Your task to perform on an android device: Add usb-c to usb-a to the cart on target Image 0: 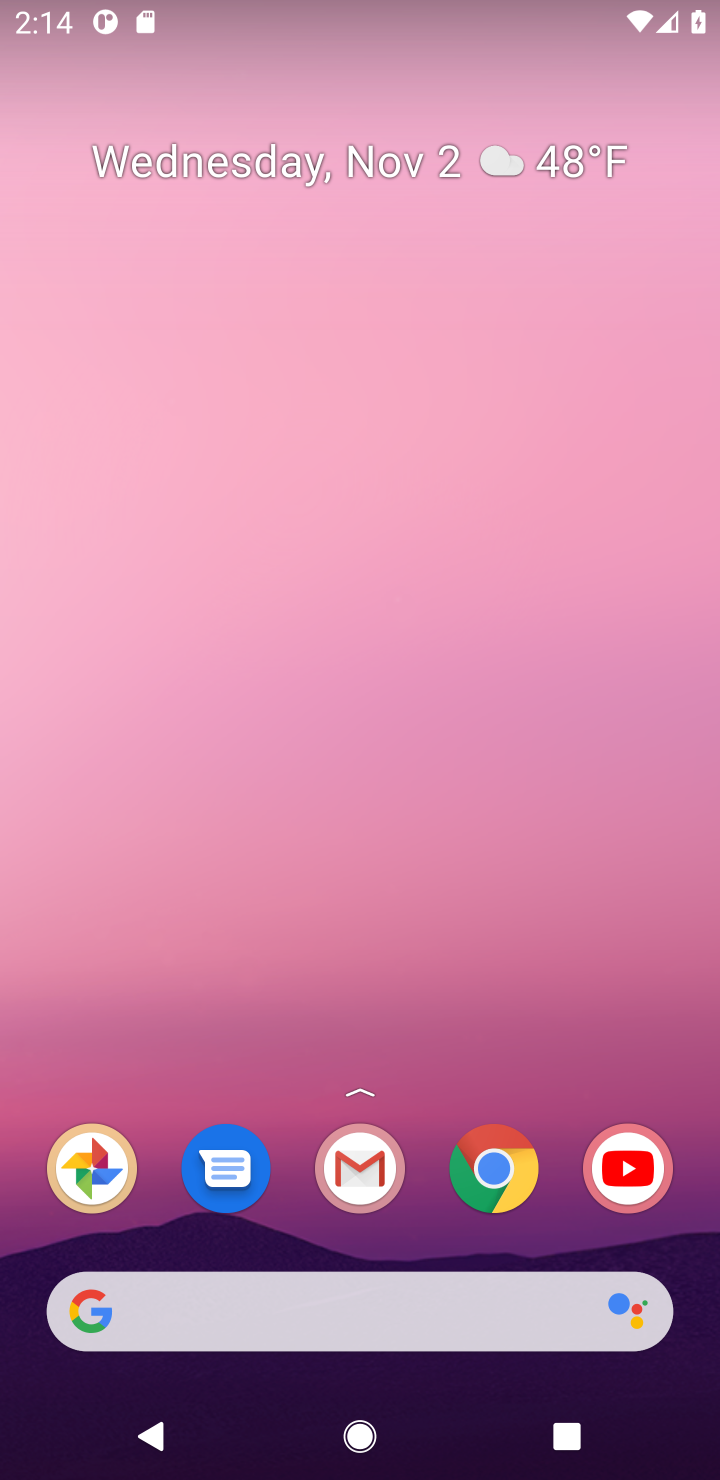
Step 0: click (349, 1306)
Your task to perform on an android device: Add usb-c to usb-a to the cart on target Image 1: 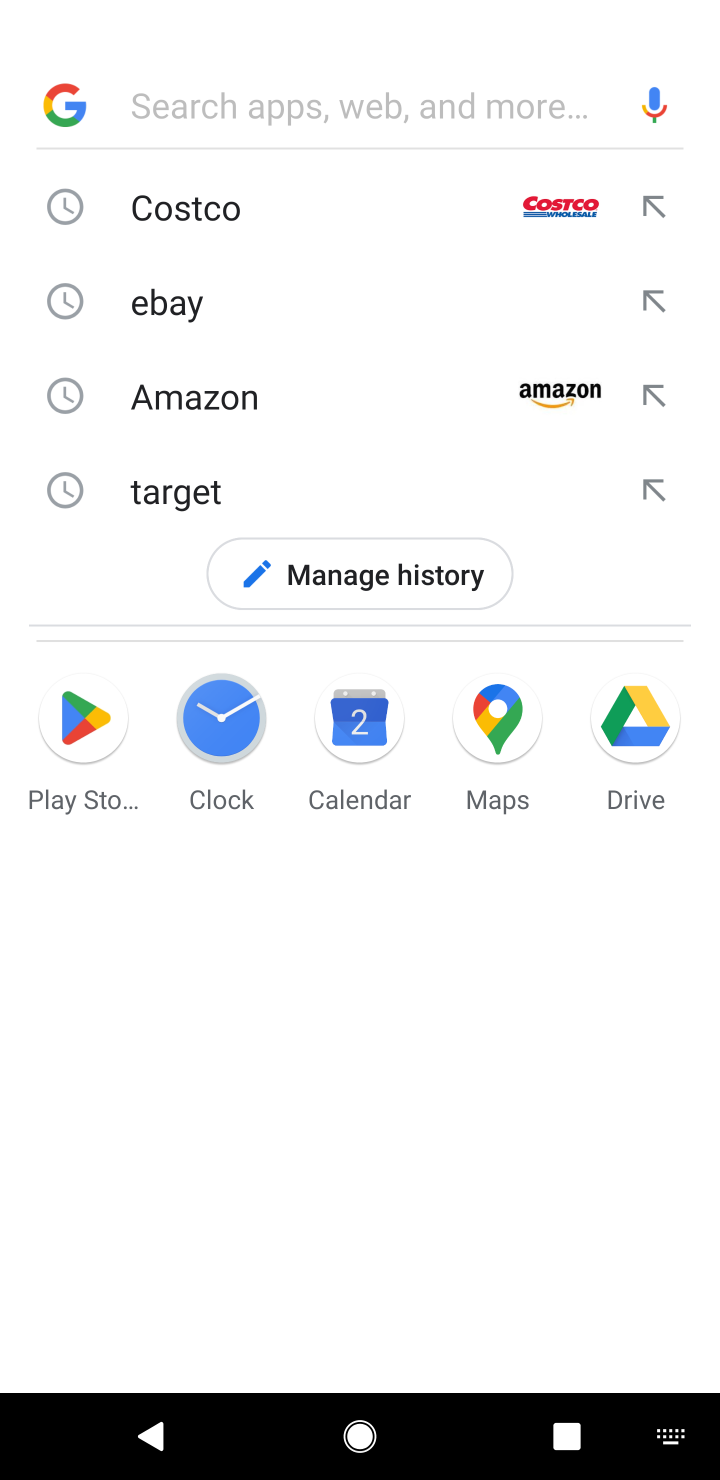
Step 1: click (181, 493)
Your task to perform on an android device: Add usb-c to usb-a to the cart on target Image 2: 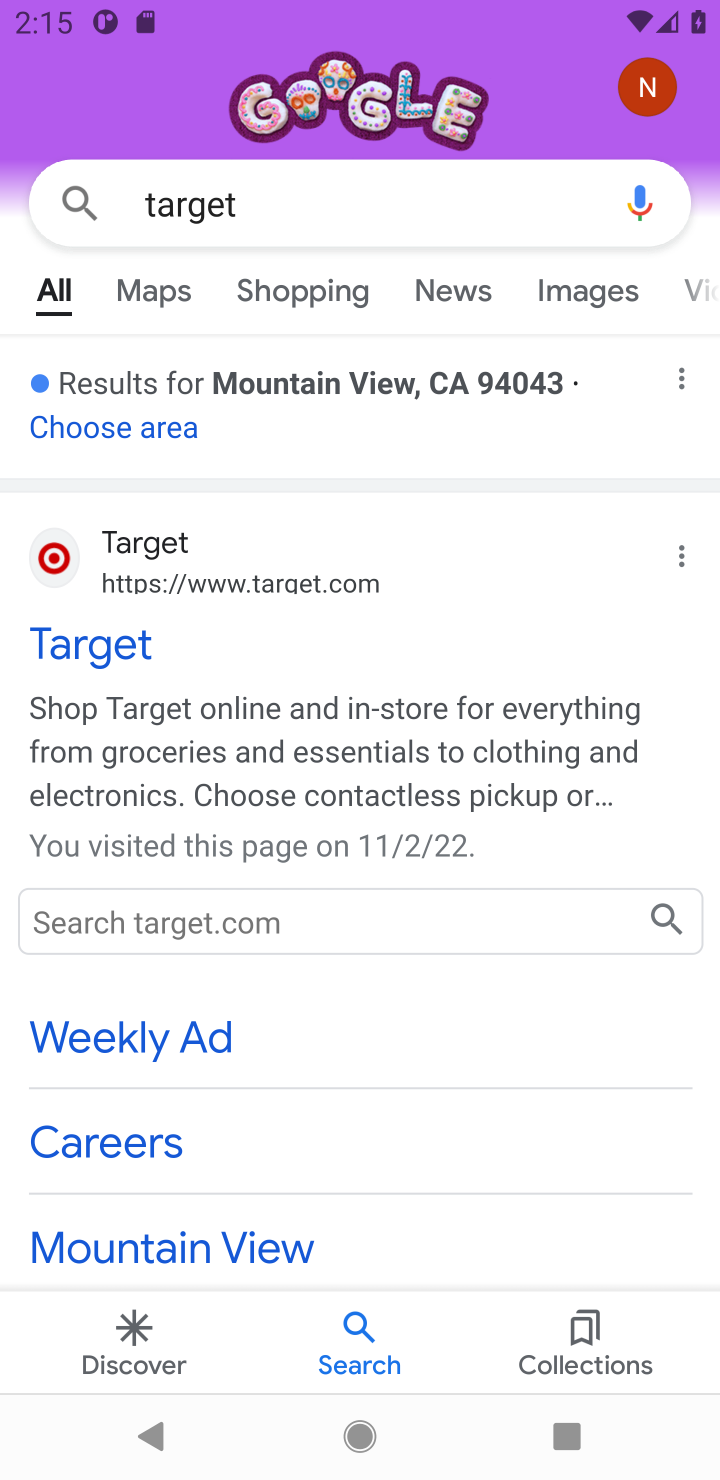
Step 2: click (137, 554)
Your task to perform on an android device: Add usb-c to usb-a to the cart on target Image 3: 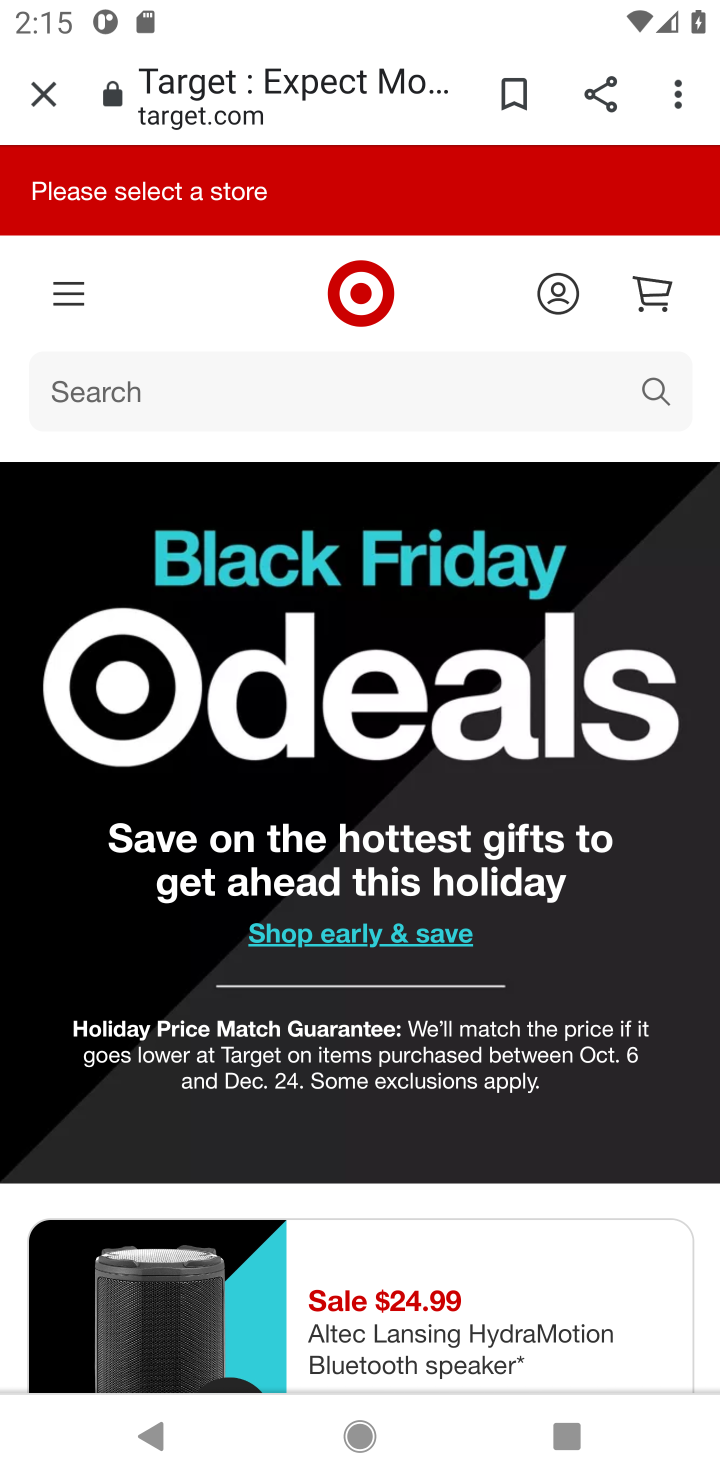
Step 3: click (426, 396)
Your task to perform on an android device: Add usb-c to usb-a to the cart on target Image 4: 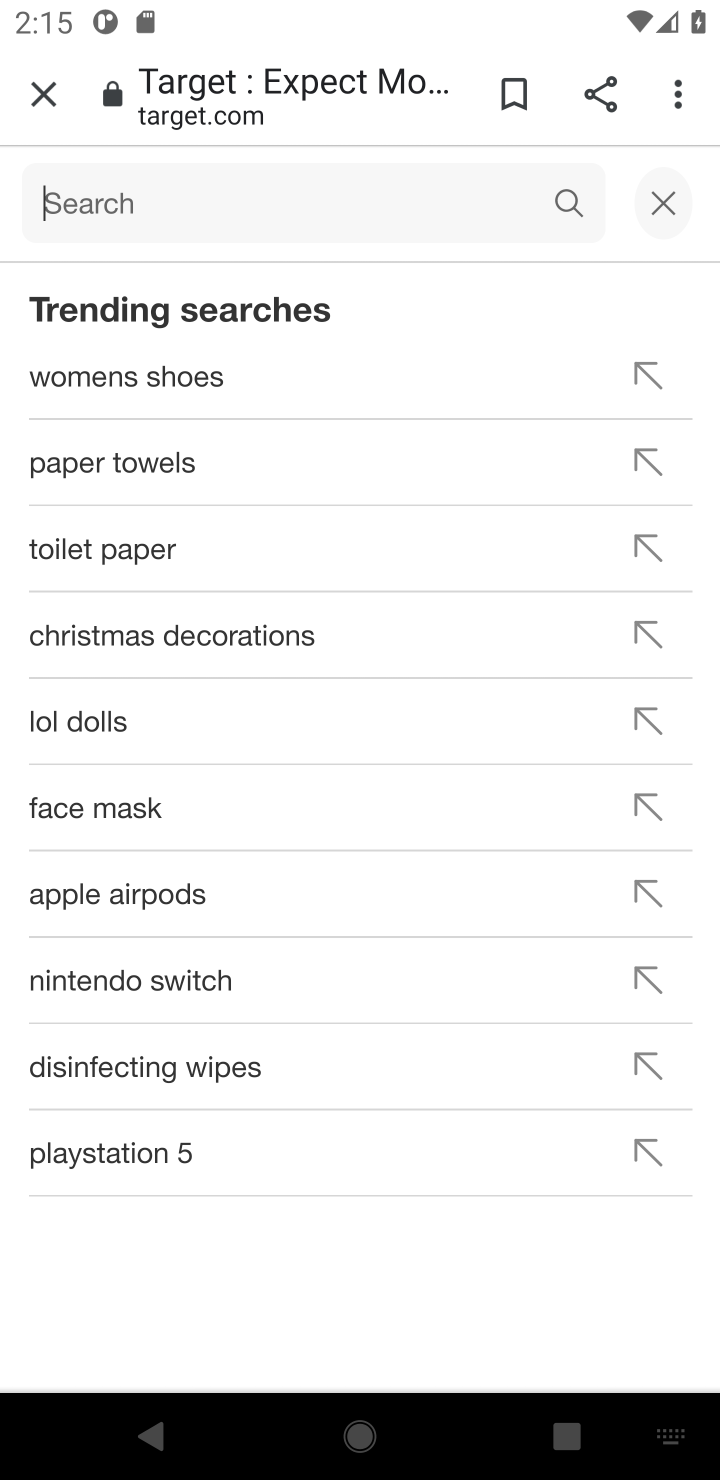
Step 4: type "usb-c to usb-a"
Your task to perform on an android device: Add usb-c to usb-a to the cart on target Image 5: 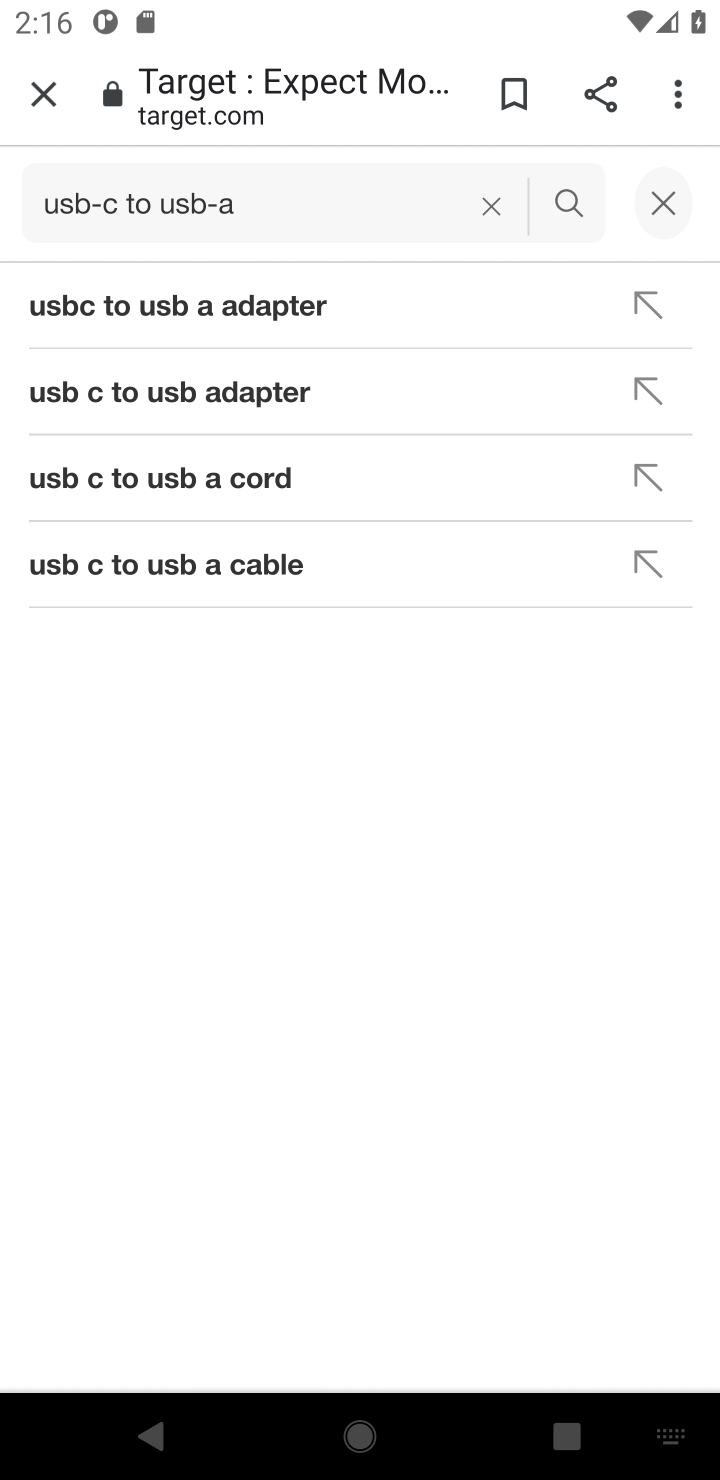
Step 5: click (209, 565)
Your task to perform on an android device: Add usb-c to usb-a to the cart on target Image 6: 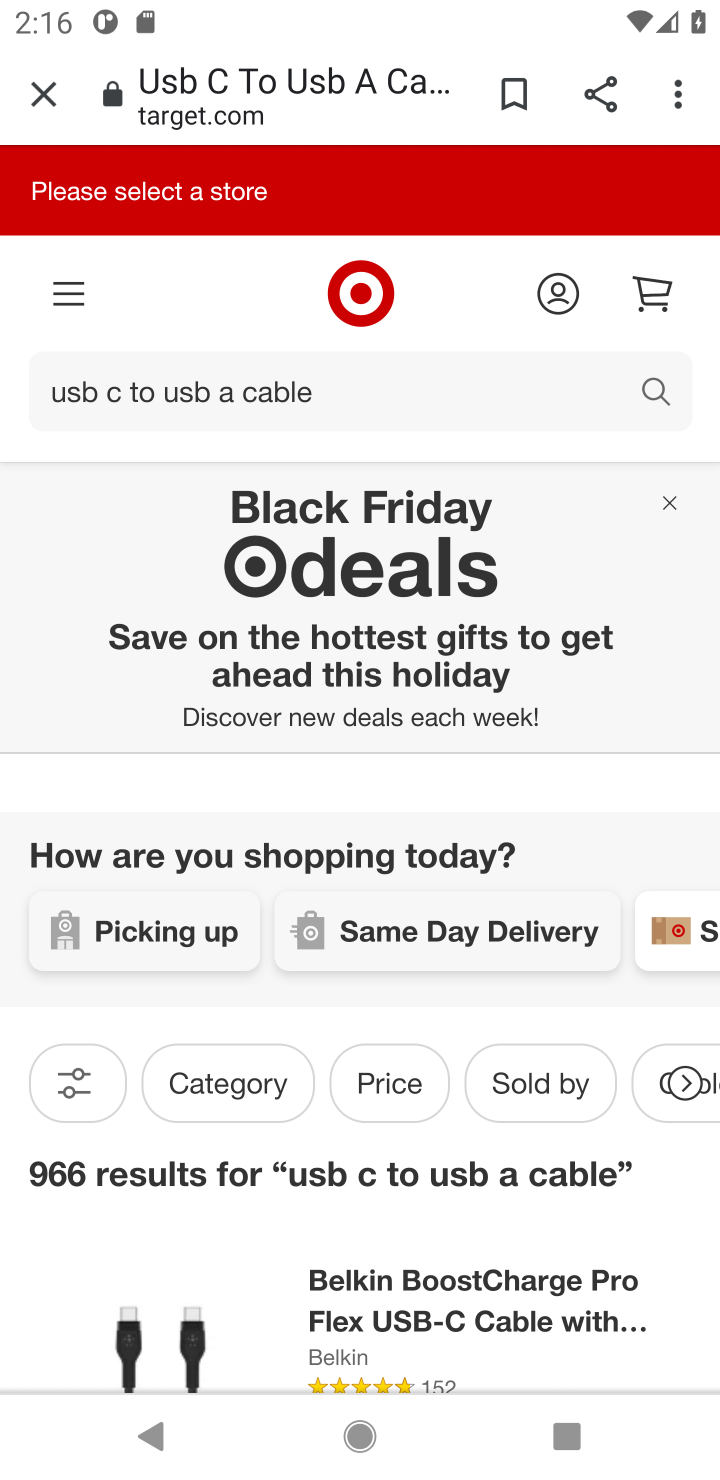
Step 6: drag from (395, 1158) to (424, 688)
Your task to perform on an android device: Add usb-c to usb-a to the cart on target Image 7: 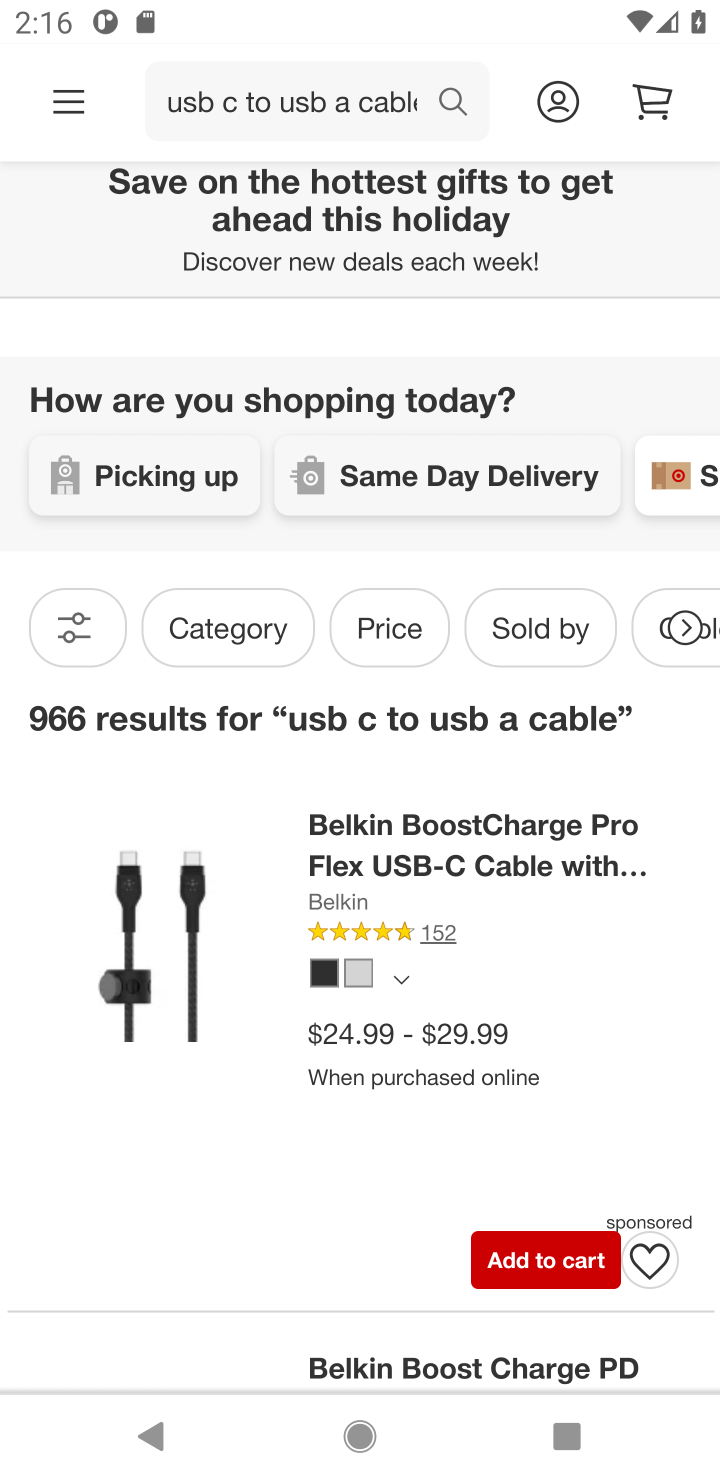
Step 7: click (529, 1253)
Your task to perform on an android device: Add usb-c to usb-a to the cart on target Image 8: 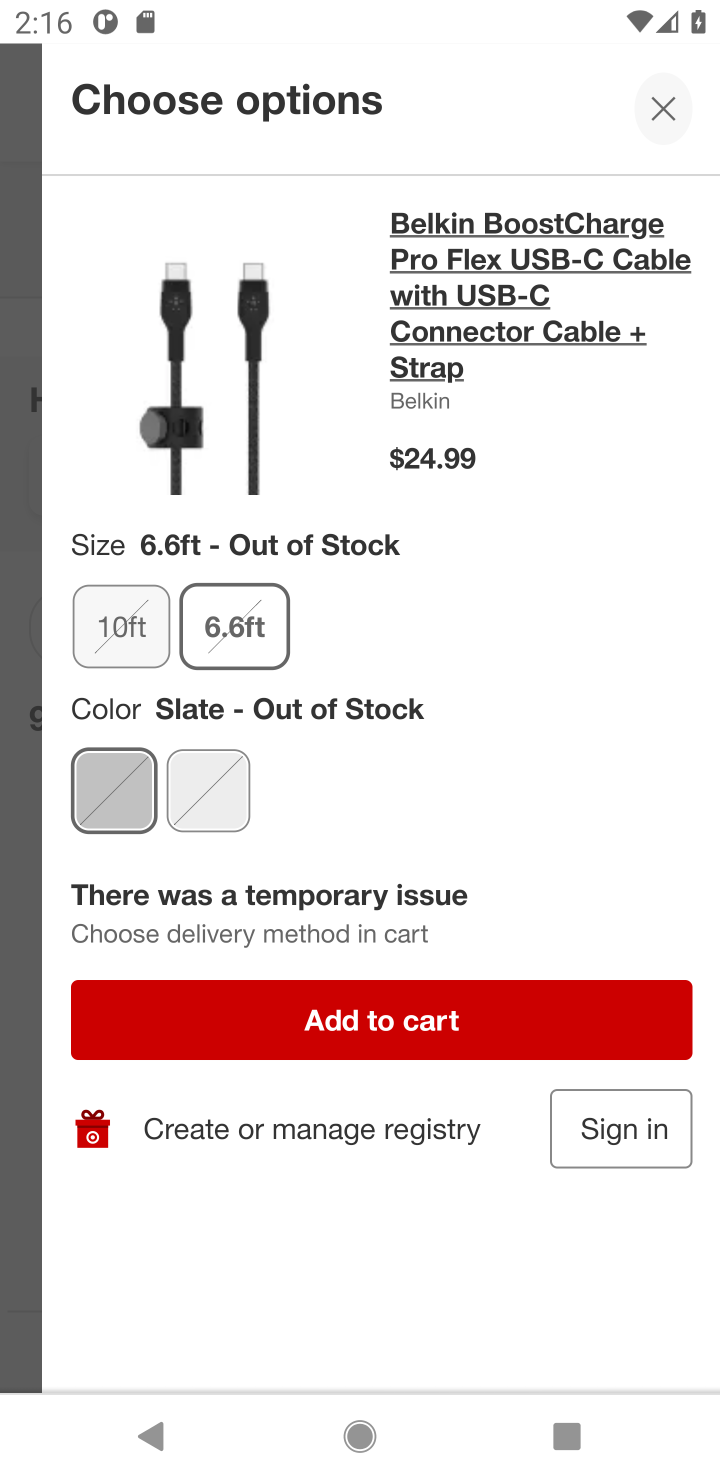
Step 8: click (390, 1017)
Your task to perform on an android device: Add usb-c to usb-a to the cart on target Image 9: 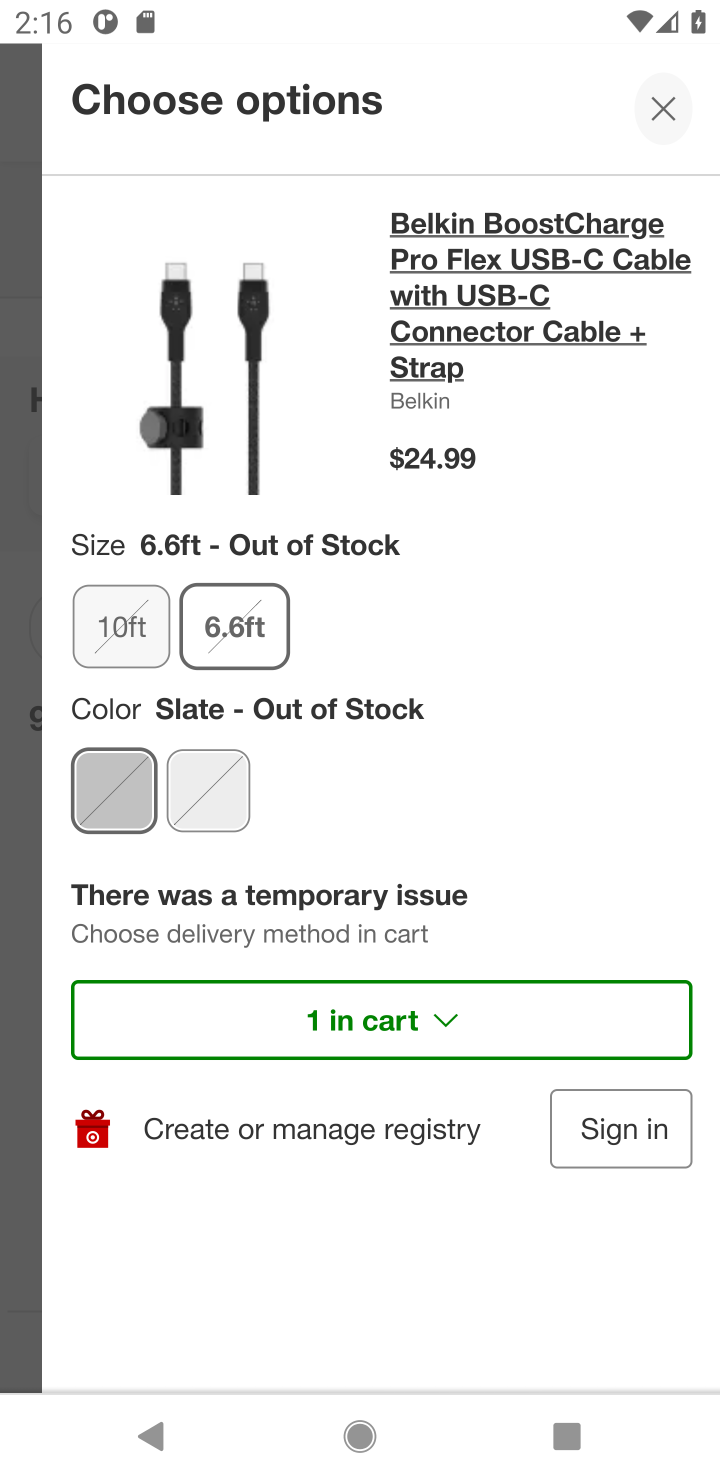
Step 9: click (660, 111)
Your task to perform on an android device: Add usb-c to usb-a to the cart on target Image 10: 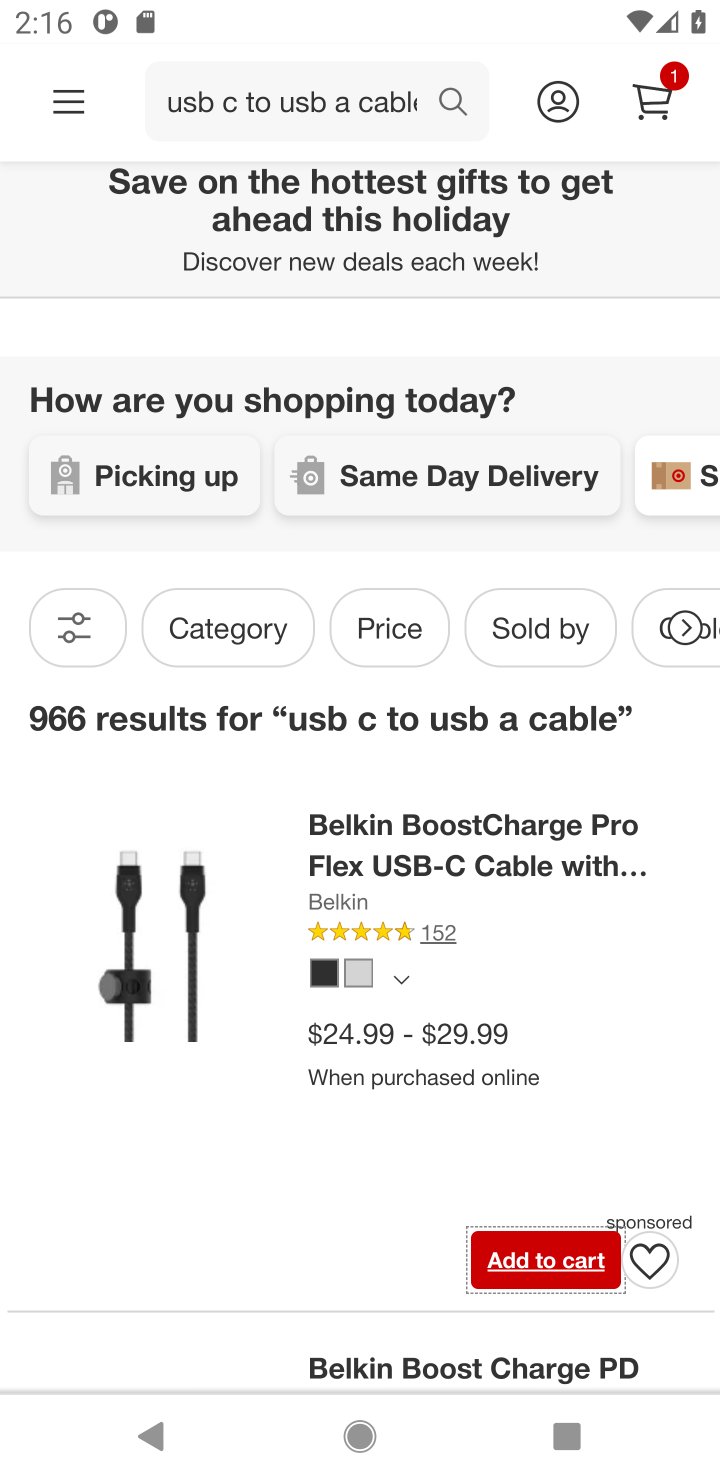
Step 10: task complete